Your task to perform on an android device: delete a single message in the gmail app Image 0: 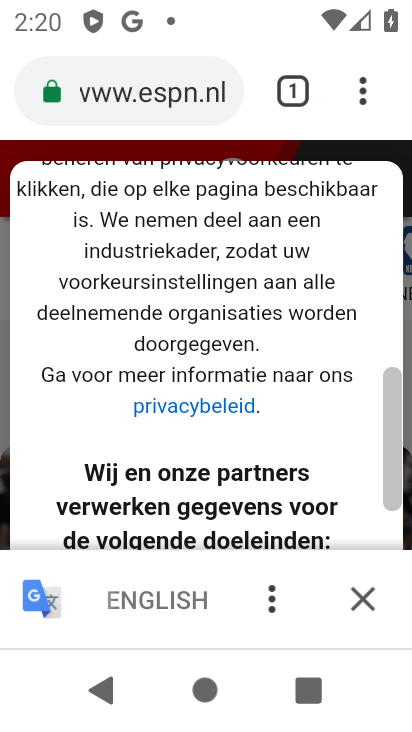
Step 0: press home button
Your task to perform on an android device: delete a single message in the gmail app Image 1: 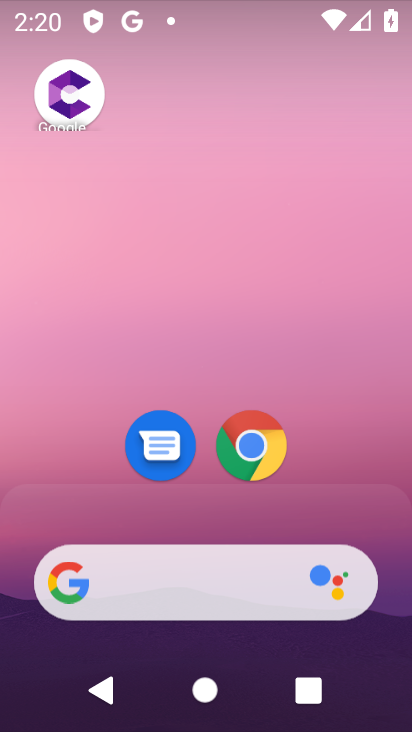
Step 1: drag from (214, 425) to (218, 162)
Your task to perform on an android device: delete a single message in the gmail app Image 2: 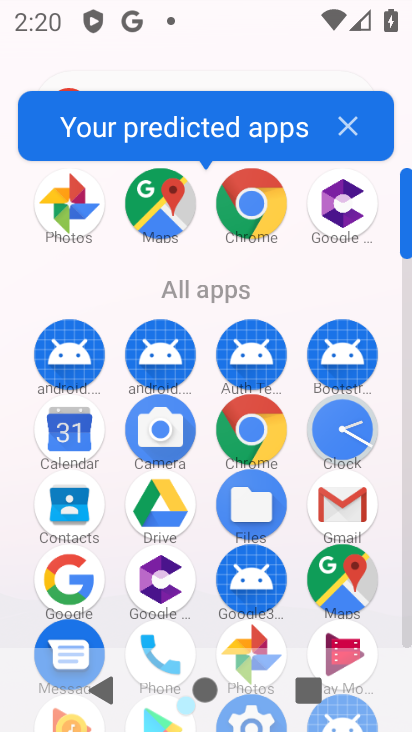
Step 2: click (342, 508)
Your task to perform on an android device: delete a single message in the gmail app Image 3: 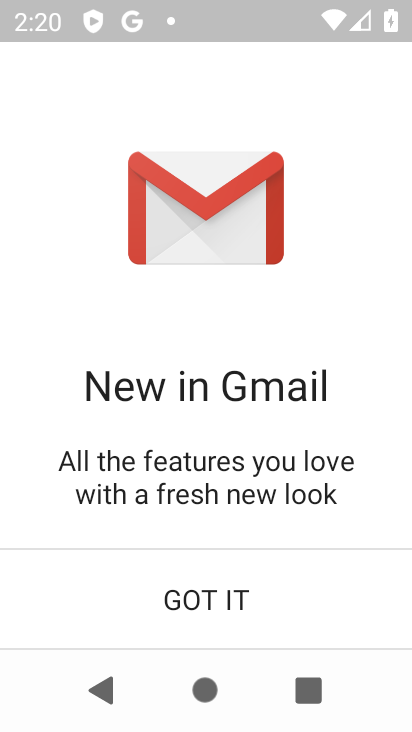
Step 3: click (206, 601)
Your task to perform on an android device: delete a single message in the gmail app Image 4: 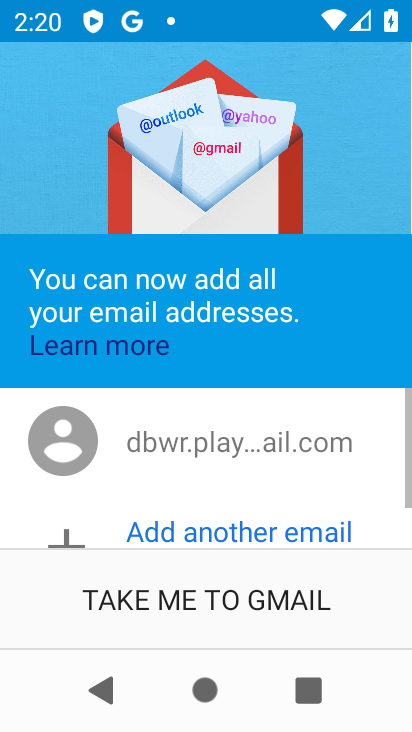
Step 4: click (206, 601)
Your task to perform on an android device: delete a single message in the gmail app Image 5: 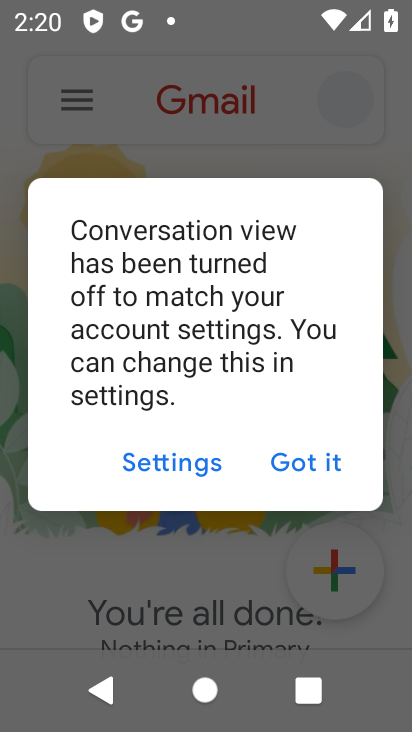
Step 5: click (356, 453)
Your task to perform on an android device: delete a single message in the gmail app Image 6: 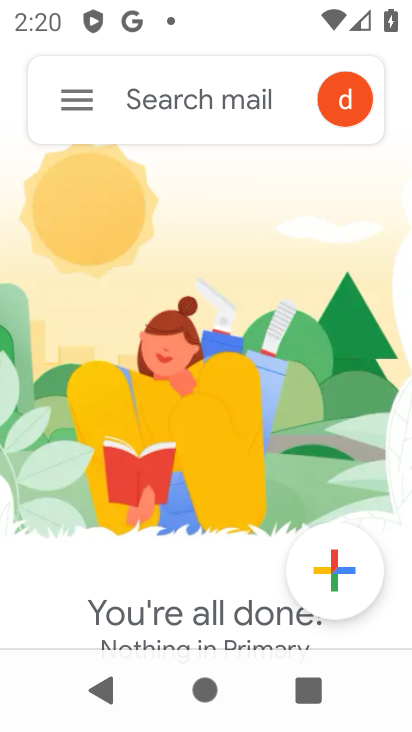
Step 6: task complete